Your task to perform on an android device: open device folders in google photos Image 0: 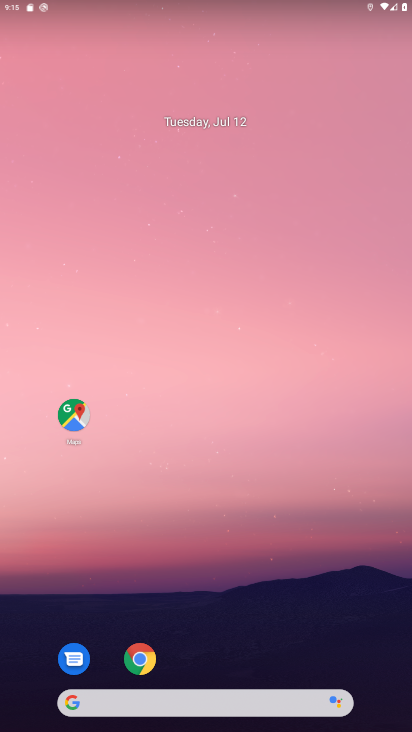
Step 0: drag from (228, 668) to (254, 128)
Your task to perform on an android device: open device folders in google photos Image 1: 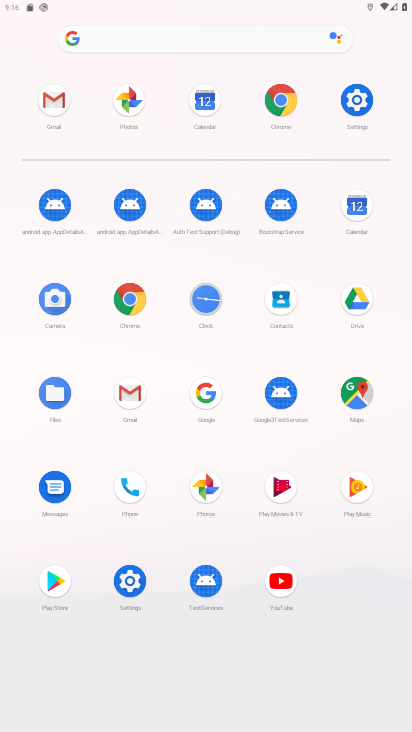
Step 1: click (212, 484)
Your task to perform on an android device: open device folders in google photos Image 2: 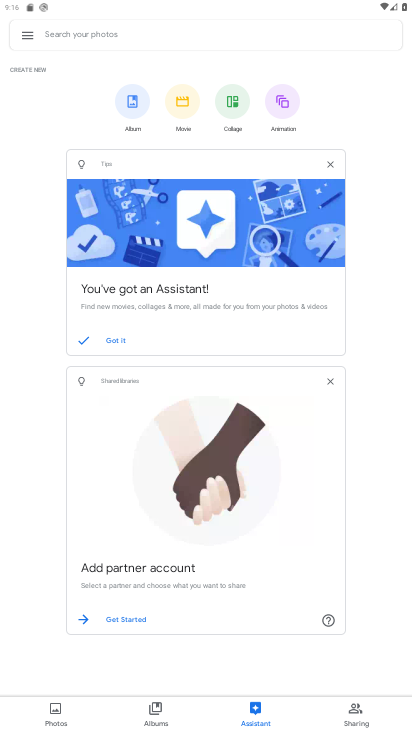
Step 2: click (28, 34)
Your task to perform on an android device: open device folders in google photos Image 3: 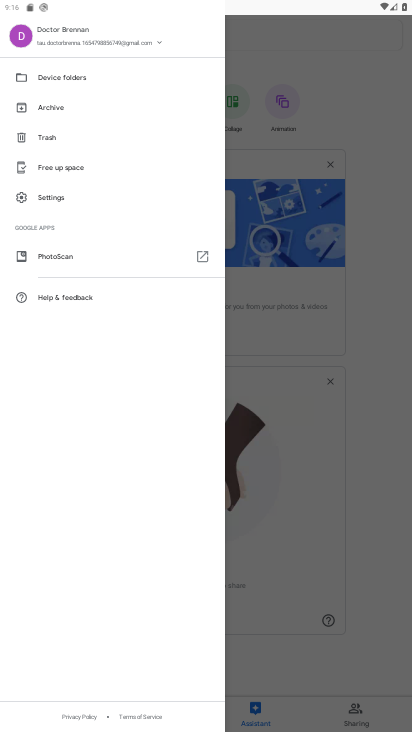
Step 3: click (75, 77)
Your task to perform on an android device: open device folders in google photos Image 4: 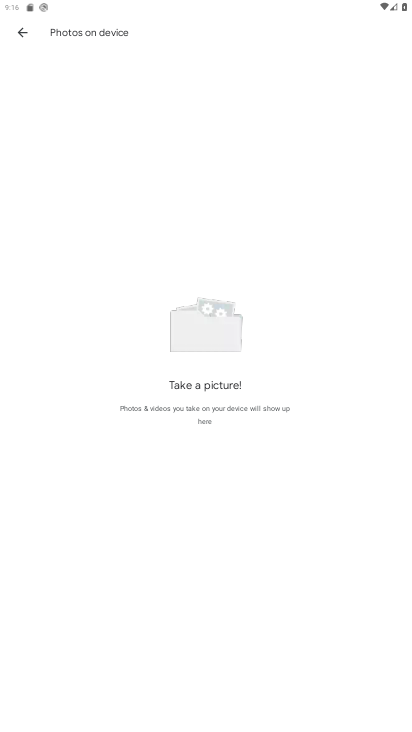
Step 4: task complete